Your task to perform on an android device: When is my next appointment? Image 0: 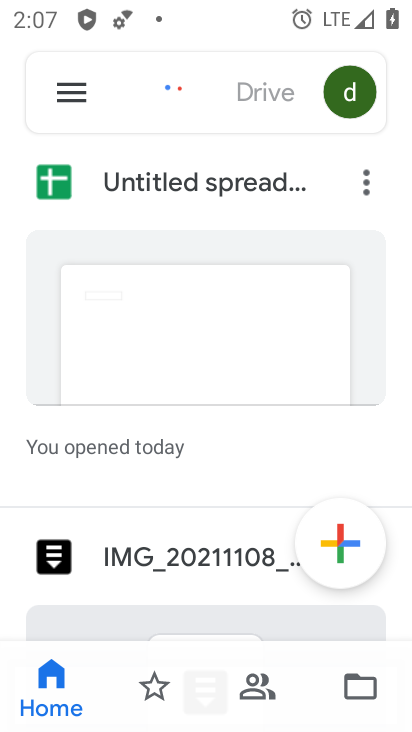
Step 0: press back button
Your task to perform on an android device: When is my next appointment? Image 1: 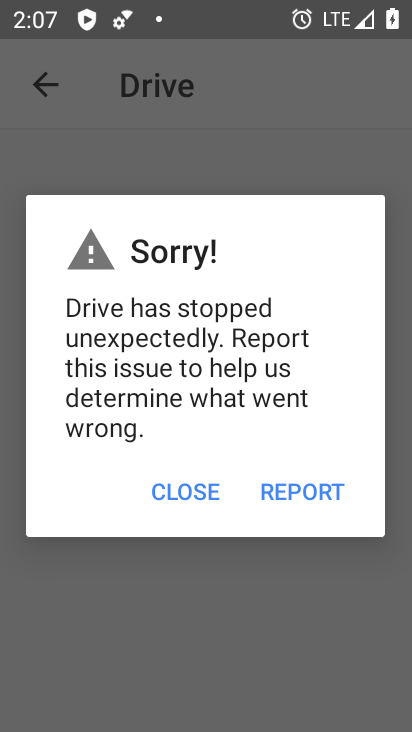
Step 1: press home button
Your task to perform on an android device: When is my next appointment? Image 2: 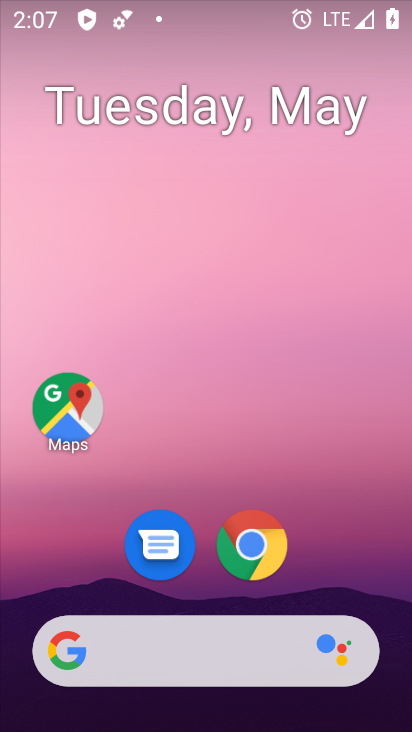
Step 2: drag from (360, 512) to (243, 7)
Your task to perform on an android device: When is my next appointment? Image 3: 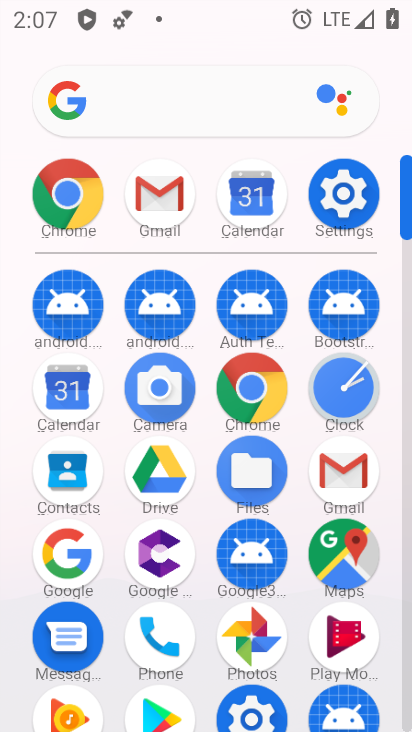
Step 3: drag from (4, 574) to (7, 262)
Your task to perform on an android device: When is my next appointment? Image 4: 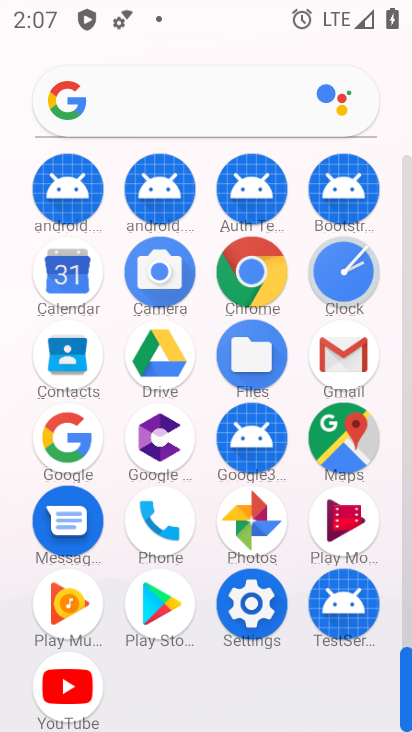
Step 4: click (67, 268)
Your task to perform on an android device: When is my next appointment? Image 5: 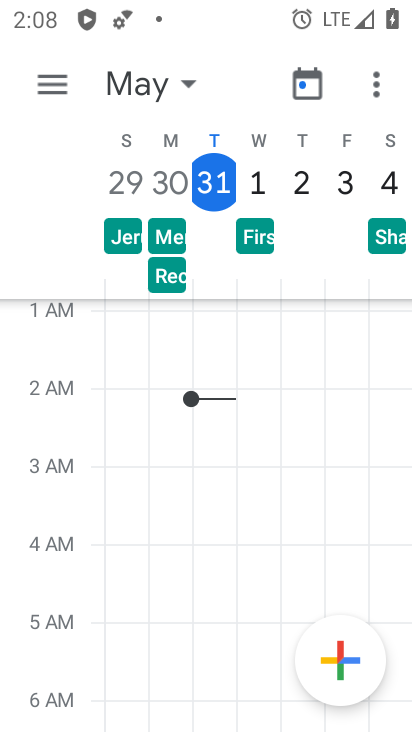
Step 5: click (64, 76)
Your task to perform on an android device: When is my next appointment? Image 6: 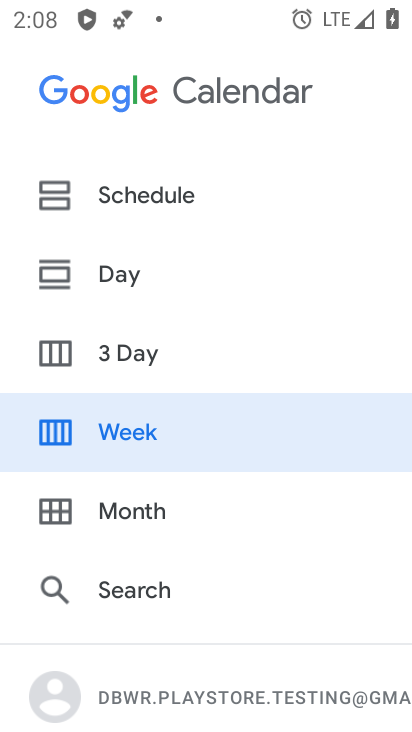
Step 6: drag from (317, 252) to (309, 593)
Your task to perform on an android device: When is my next appointment? Image 7: 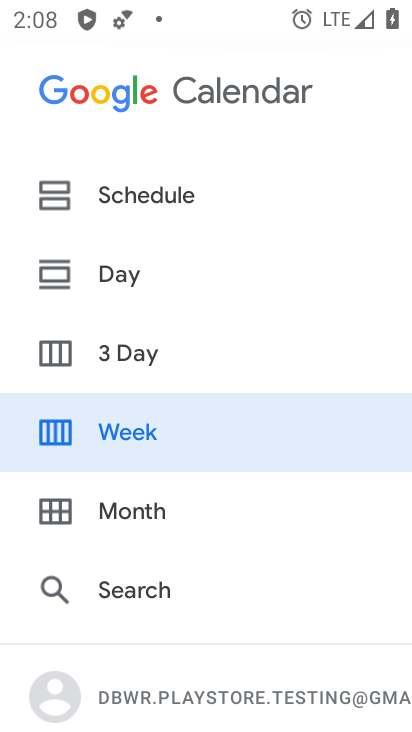
Step 7: click (147, 183)
Your task to perform on an android device: When is my next appointment? Image 8: 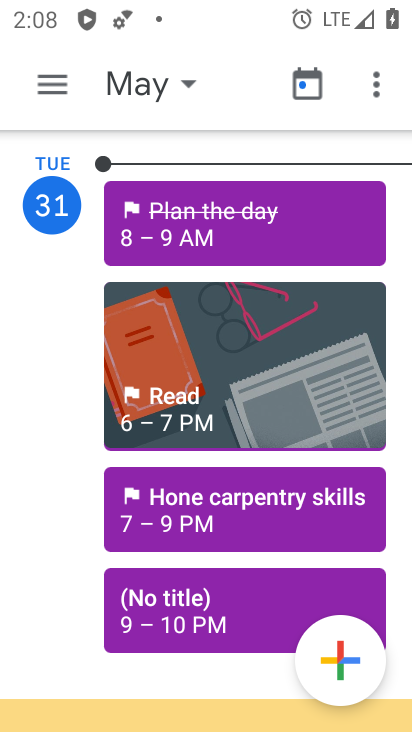
Step 8: task complete